Your task to perform on an android device: What's the weather today? Image 0: 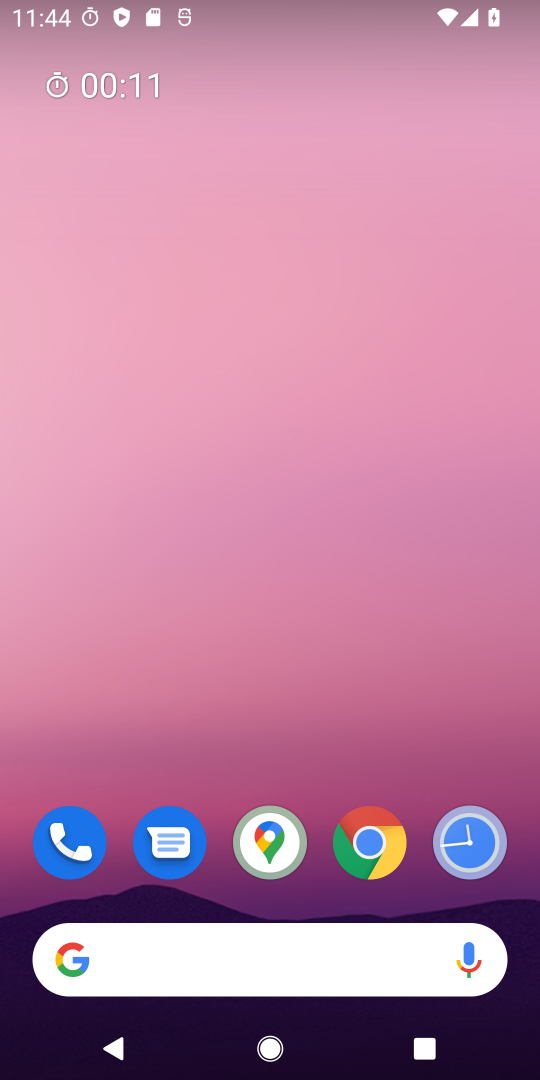
Step 0: click (322, 939)
Your task to perform on an android device: What's the weather today? Image 1: 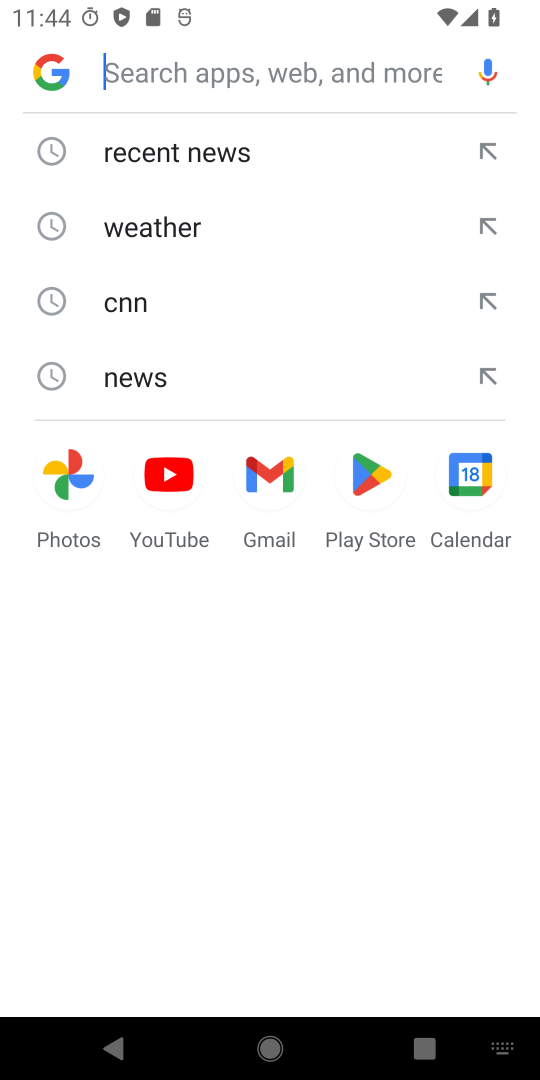
Step 1: click (245, 219)
Your task to perform on an android device: What's the weather today? Image 2: 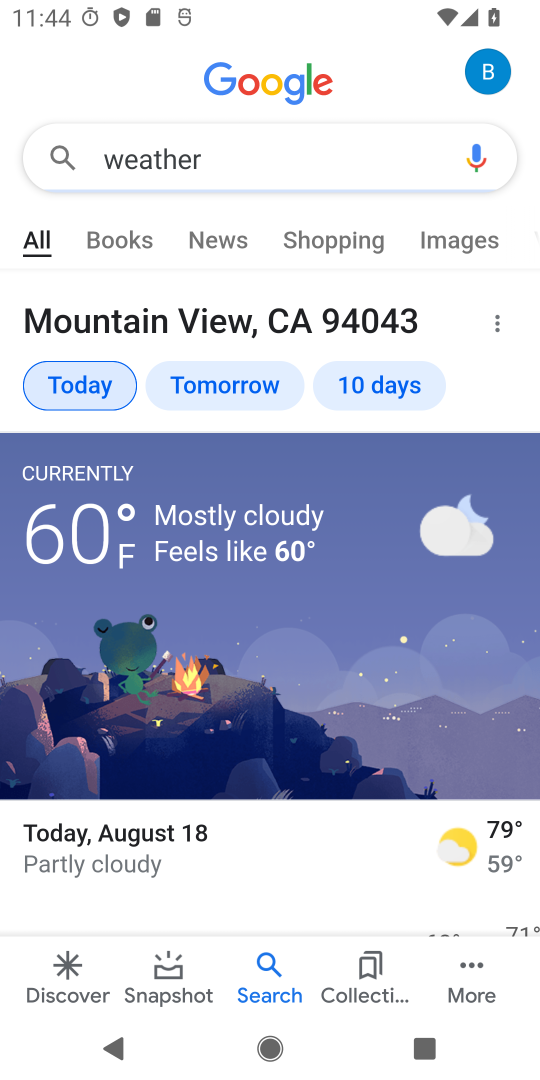
Step 2: task complete